Your task to perform on an android device: Go to display settings Image 0: 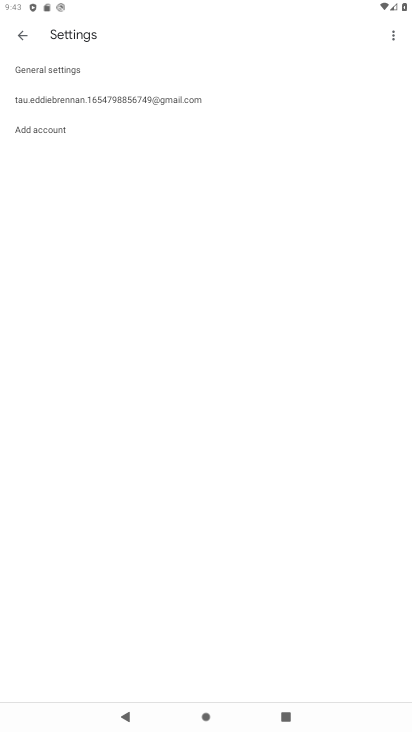
Step 0: click (21, 40)
Your task to perform on an android device: Go to display settings Image 1: 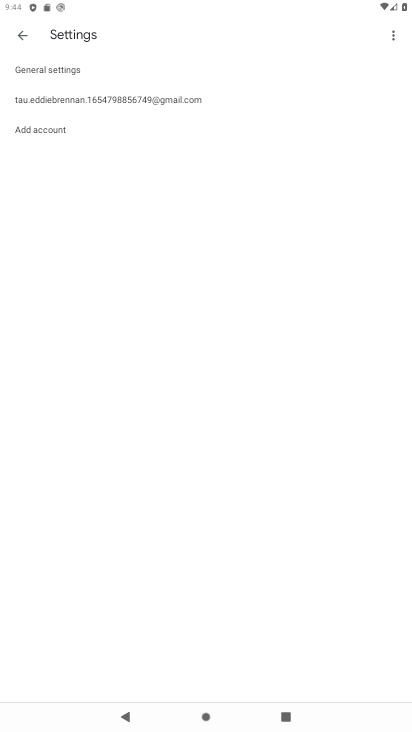
Step 1: press home button
Your task to perform on an android device: Go to display settings Image 2: 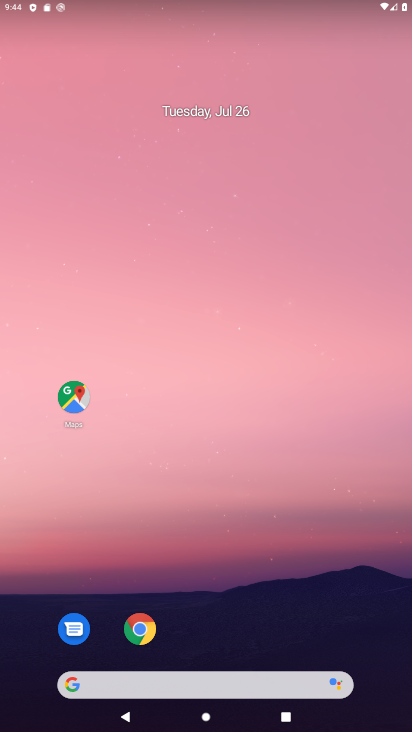
Step 2: drag from (265, 634) to (276, 44)
Your task to perform on an android device: Go to display settings Image 3: 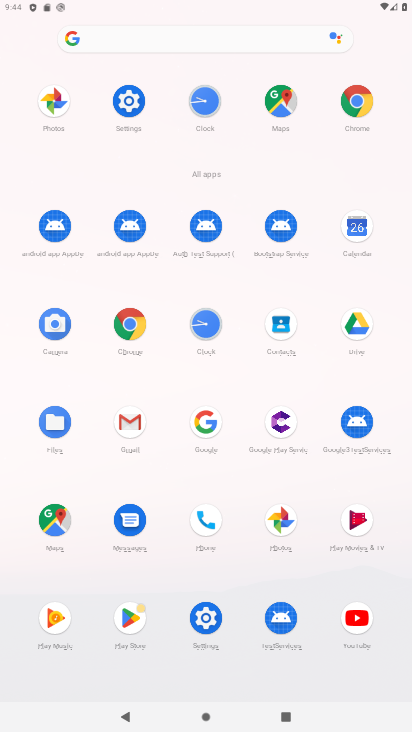
Step 3: click (133, 126)
Your task to perform on an android device: Go to display settings Image 4: 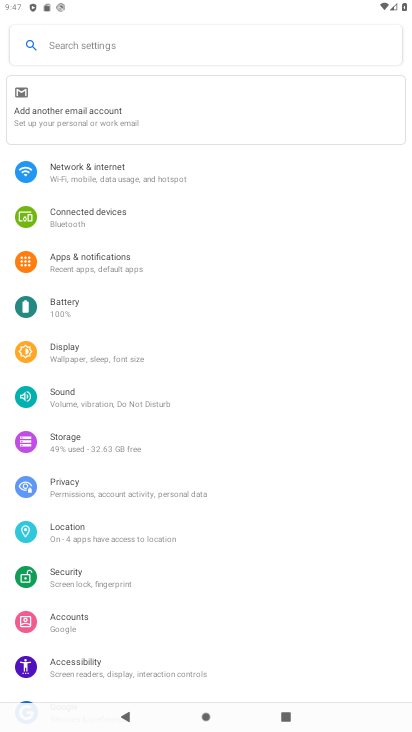
Step 4: click (100, 348)
Your task to perform on an android device: Go to display settings Image 5: 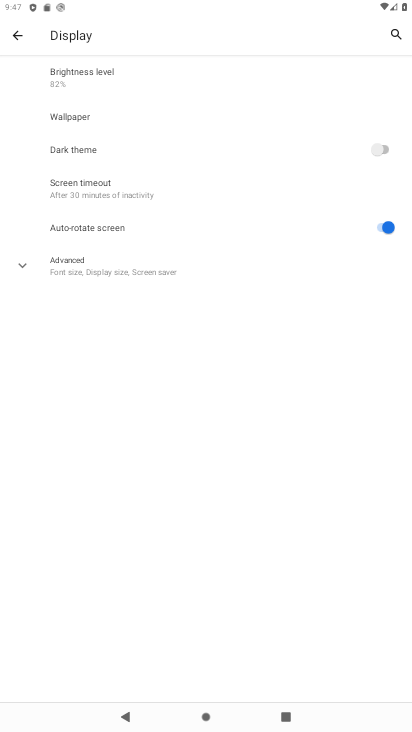
Step 5: task complete